Your task to perform on an android device: Open Chrome and go to settings Image 0: 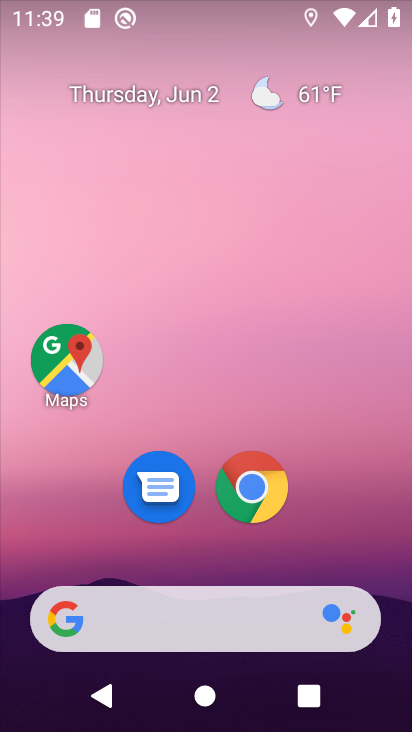
Step 0: click (252, 484)
Your task to perform on an android device: Open Chrome and go to settings Image 1: 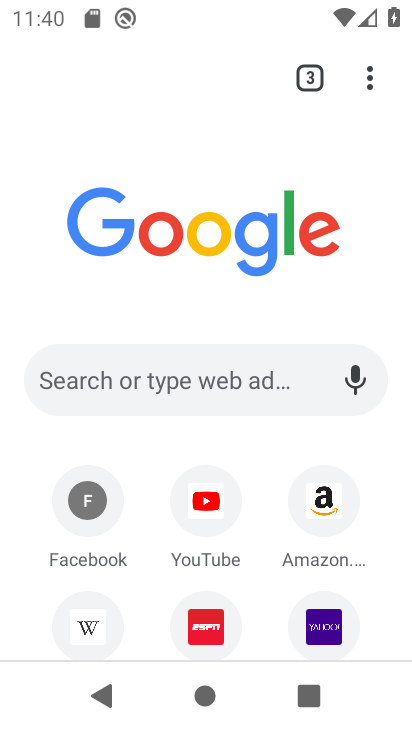
Step 1: click (368, 79)
Your task to perform on an android device: Open Chrome and go to settings Image 2: 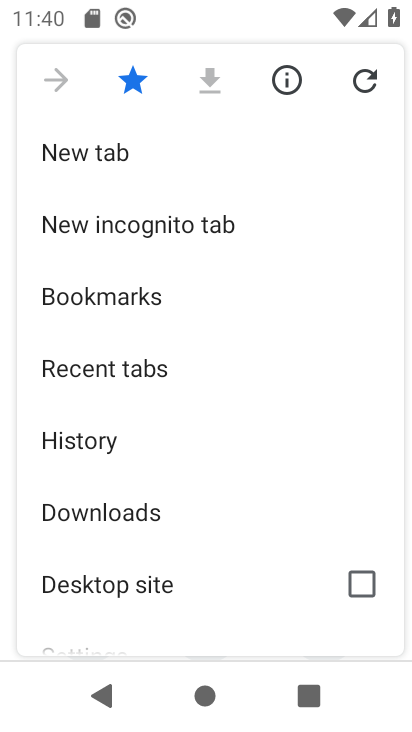
Step 2: task complete